Your task to perform on an android device: change keyboard looks Image 0: 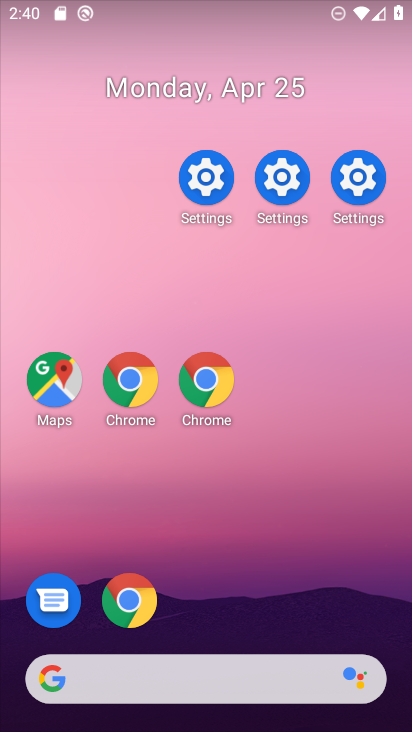
Step 0: drag from (299, 680) to (276, 379)
Your task to perform on an android device: change keyboard looks Image 1: 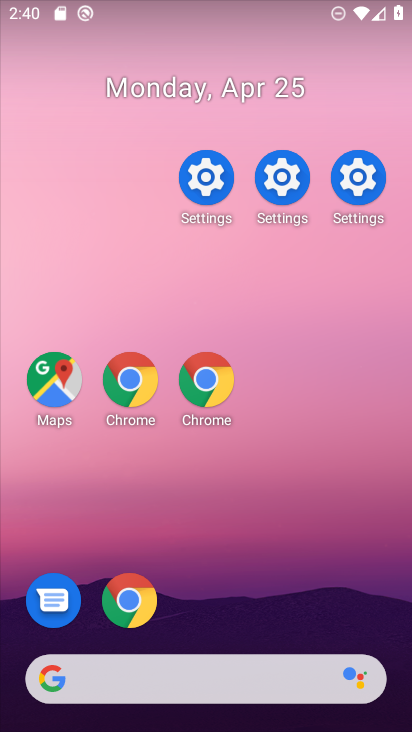
Step 1: drag from (261, 508) to (261, 111)
Your task to perform on an android device: change keyboard looks Image 2: 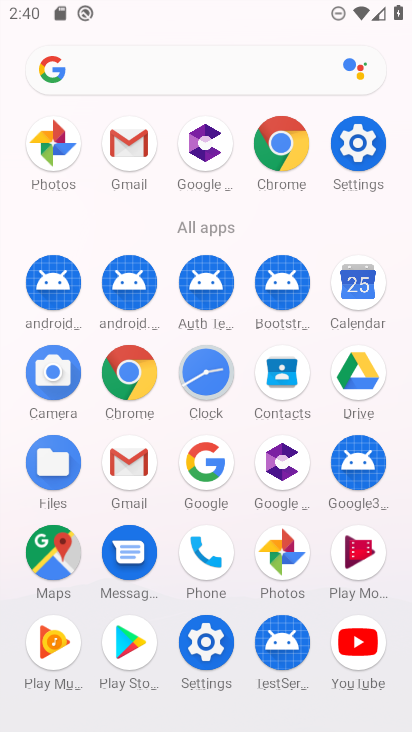
Step 2: click (360, 147)
Your task to perform on an android device: change keyboard looks Image 3: 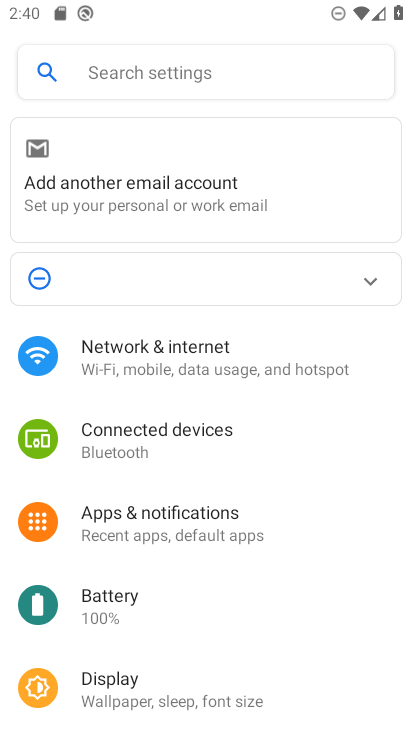
Step 3: drag from (165, 566) to (177, 187)
Your task to perform on an android device: change keyboard looks Image 4: 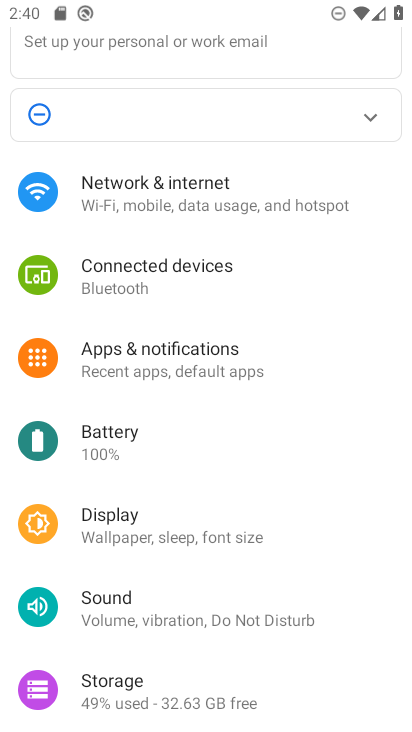
Step 4: drag from (156, 630) to (165, 249)
Your task to perform on an android device: change keyboard looks Image 5: 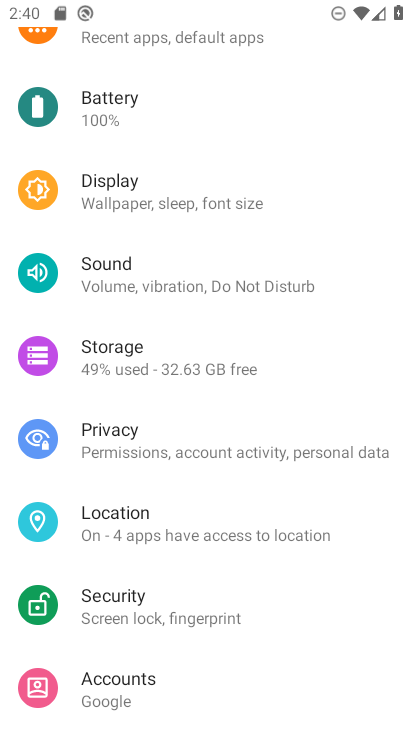
Step 5: drag from (155, 598) to (196, 110)
Your task to perform on an android device: change keyboard looks Image 6: 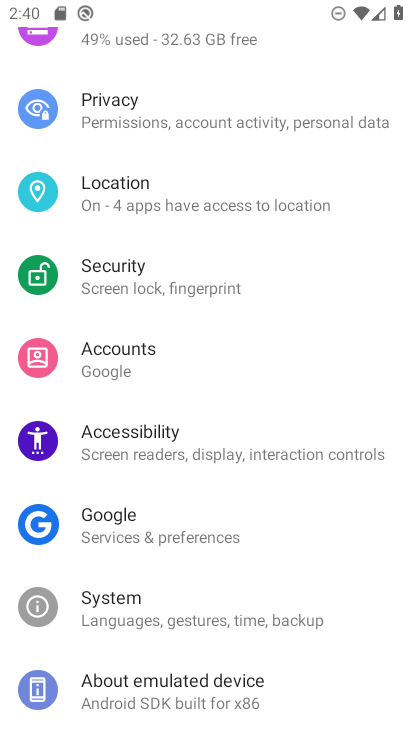
Step 6: click (120, 610)
Your task to perform on an android device: change keyboard looks Image 7: 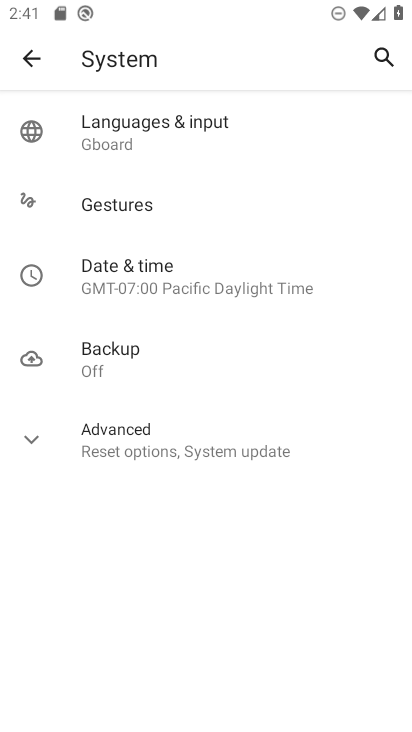
Step 7: click (120, 134)
Your task to perform on an android device: change keyboard looks Image 8: 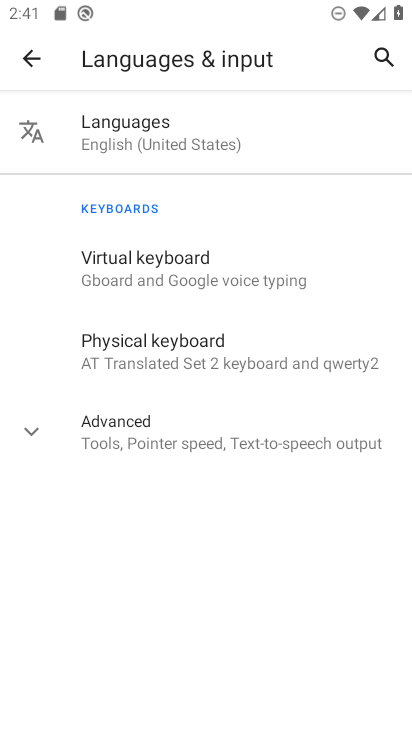
Step 8: click (126, 272)
Your task to perform on an android device: change keyboard looks Image 9: 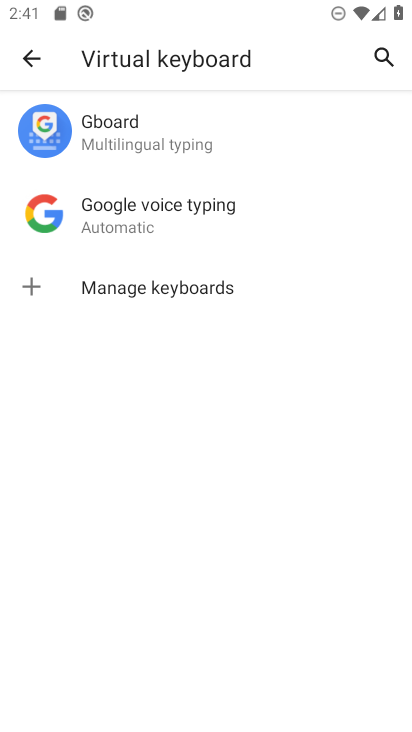
Step 9: click (104, 139)
Your task to perform on an android device: change keyboard looks Image 10: 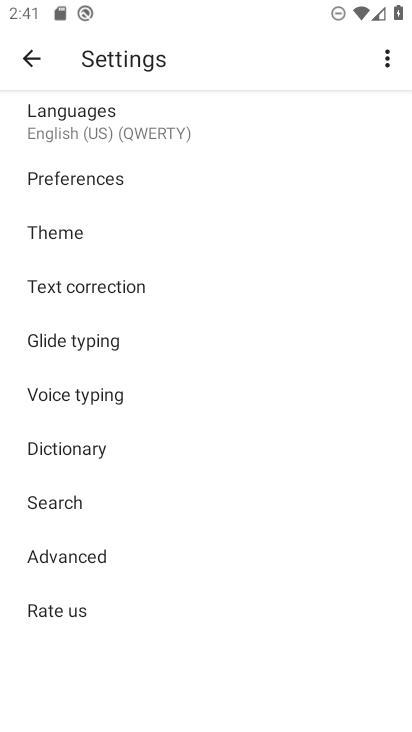
Step 10: click (55, 228)
Your task to perform on an android device: change keyboard looks Image 11: 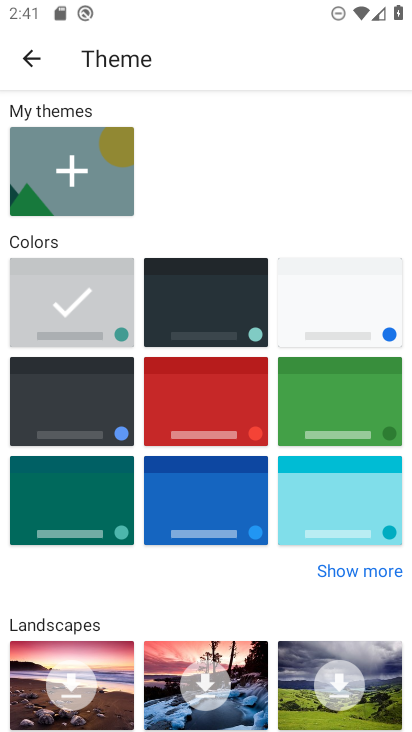
Step 11: drag from (178, 683) to (172, 242)
Your task to perform on an android device: change keyboard looks Image 12: 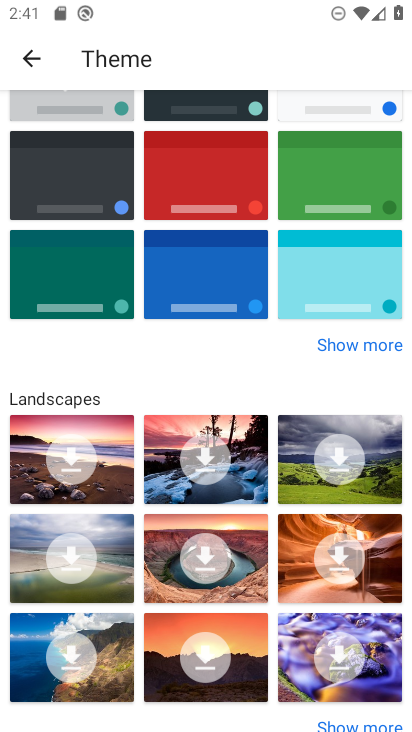
Step 12: click (325, 655)
Your task to perform on an android device: change keyboard looks Image 13: 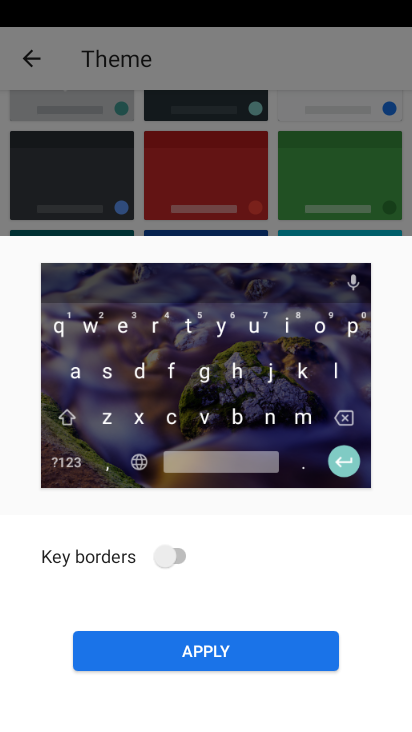
Step 13: click (211, 641)
Your task to perform on an android device: change keyboard looks Image 14: 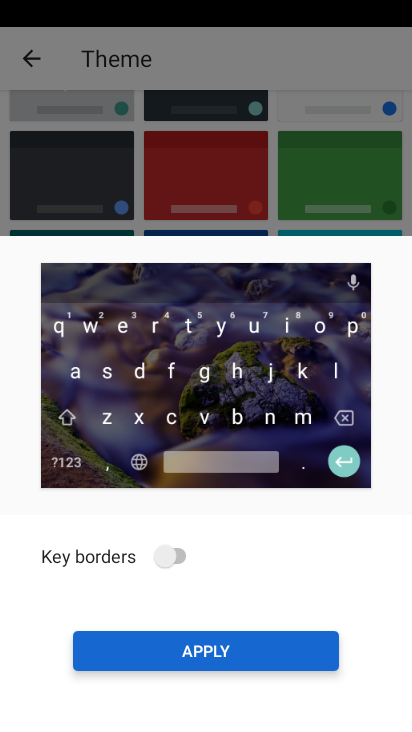
Step 14: click (209, 644)
Your task to perform on an android device: change keyboard looks Image 15: 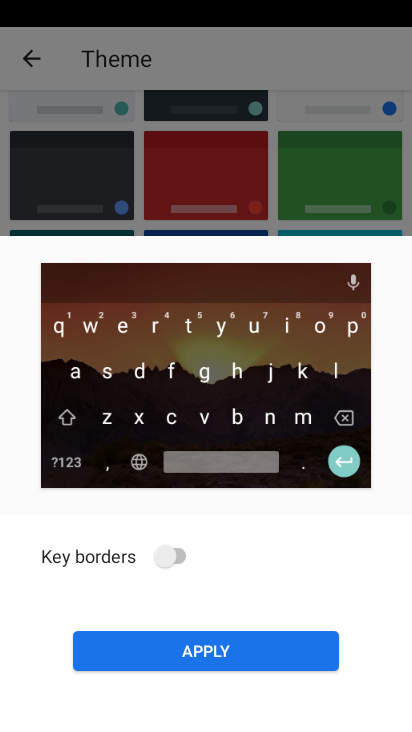
Step 15: click (165, 653)
Your task to perform on an android device: change keyboard looks Image 16: 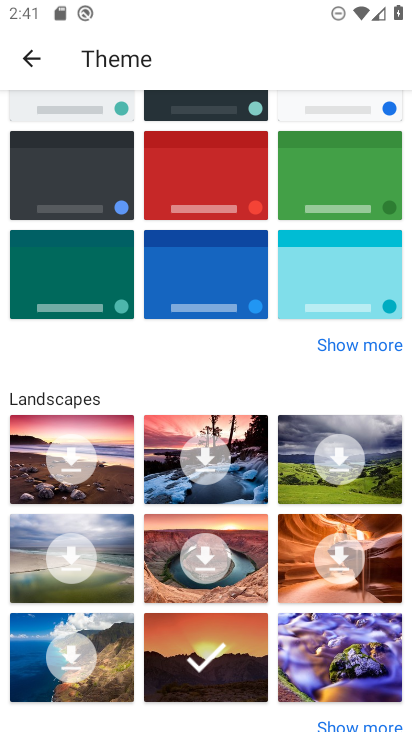
Step 16: click (193, 661)
Your task to perform on an android device: change keyboard looks Image 17: 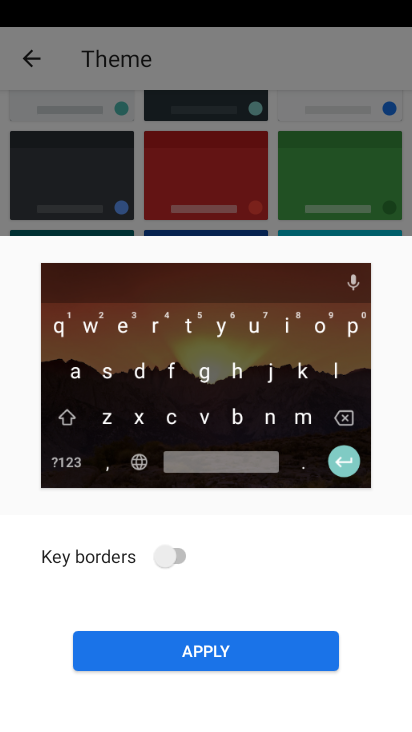
Step 17: click (188, 667)
Your task to perform on an android device: change keyboard looks Image 18: 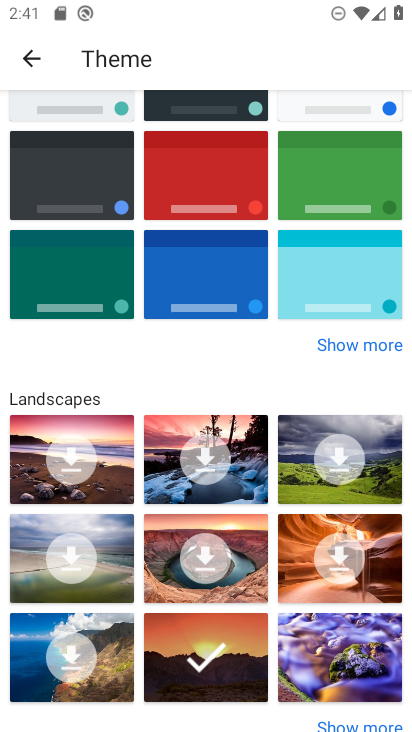
Step 18: click (189, 668)
Your task to perform on an android device: change keyboard looks Image 19: 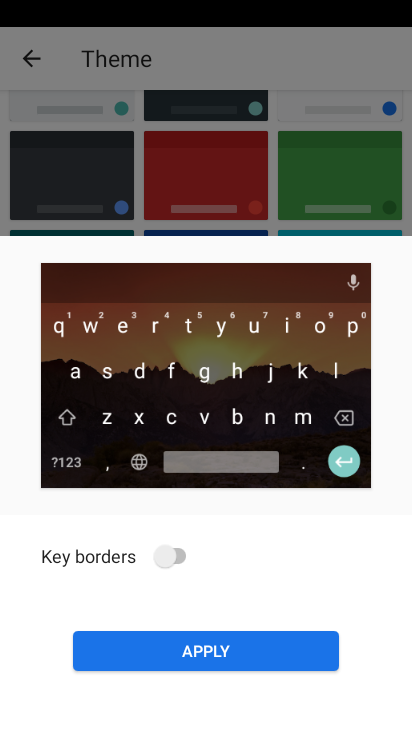
Step 19: click (212, 643)
Your task to perform on an android device: change keyboard looks Image 20: 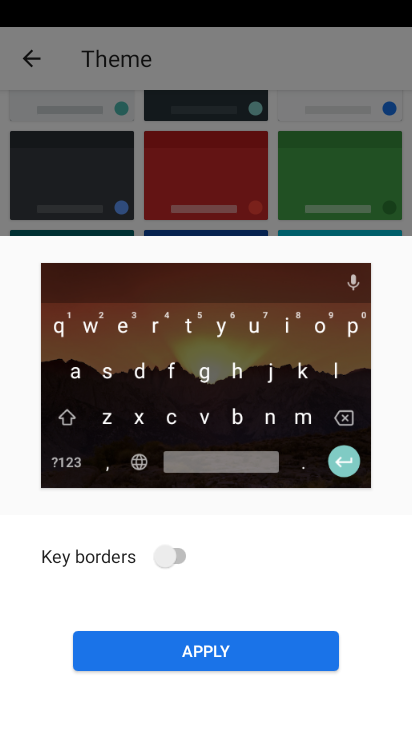
Step 20: click (212, 643)
Your task to perform on an android device: change keyboard looks Image 21: 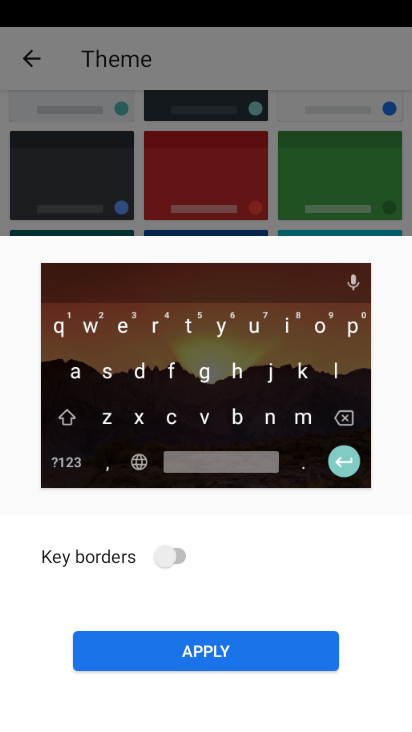
Step 21: click (168, 553)
Your task to perform on an android device: change keyboard looks Image 22: 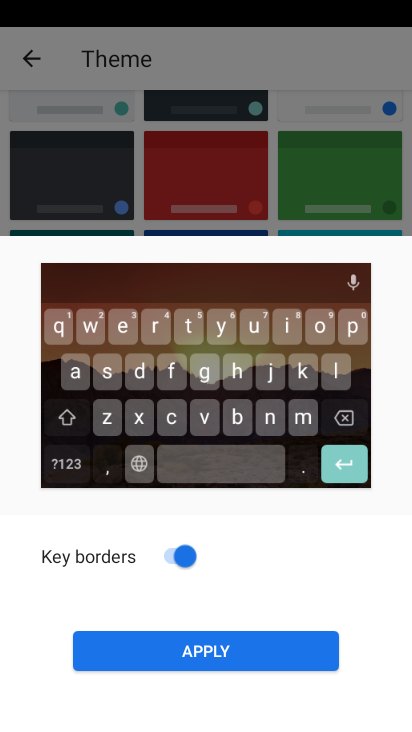
Step 22: click (198, 649)
Your task to perform on an android device: change keyboard looks Image 23: 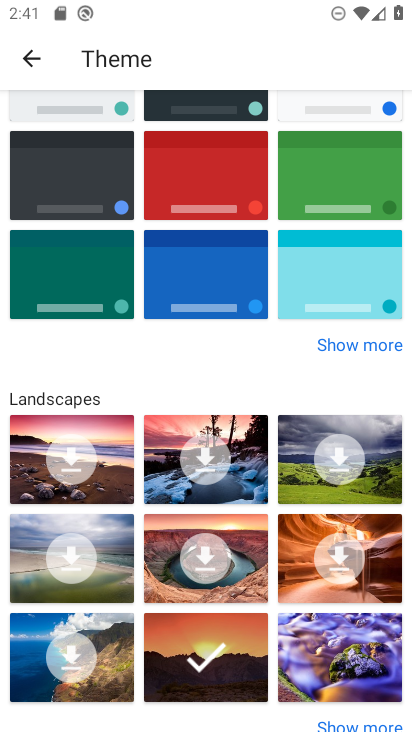
Step 23: task complete